Your task to perform on an android device: install app "Adobe Express: Graphic Design" Image 0: 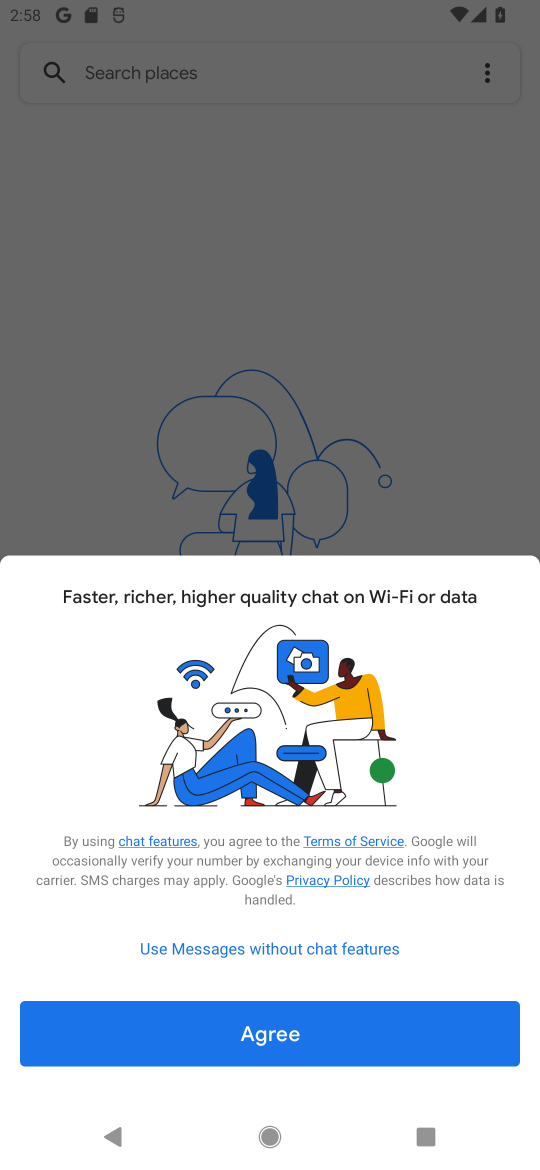
Step 0: press home button
Your task to perform on an android device: install app "Adobe Express: Graphic Design" Image 1: 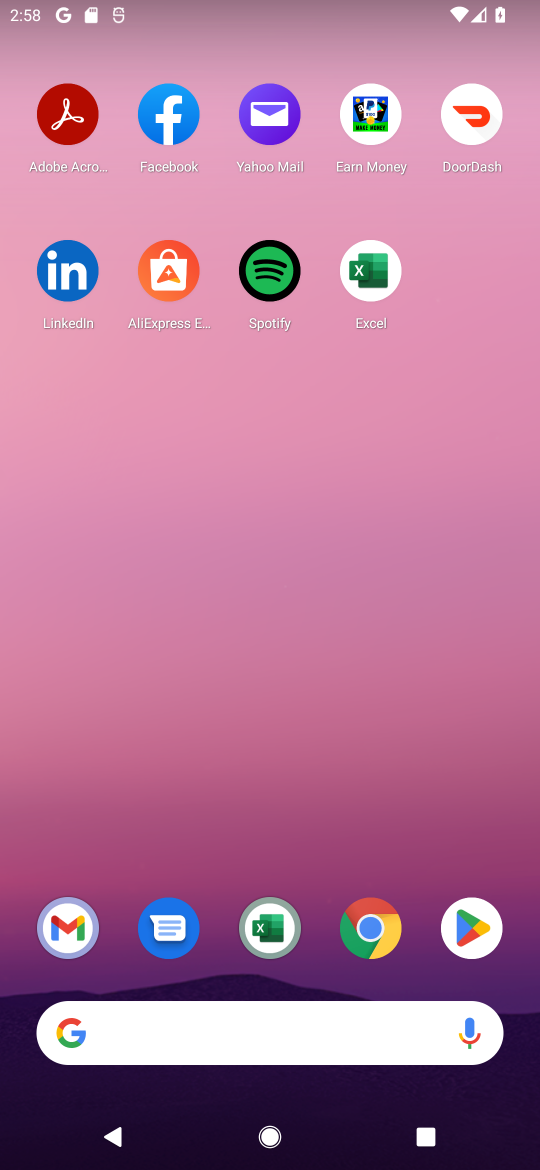
Step 1: click (439, 936)
Your task to perform on an android device: install app "Adobe Express: Graphic Design" Image 2: 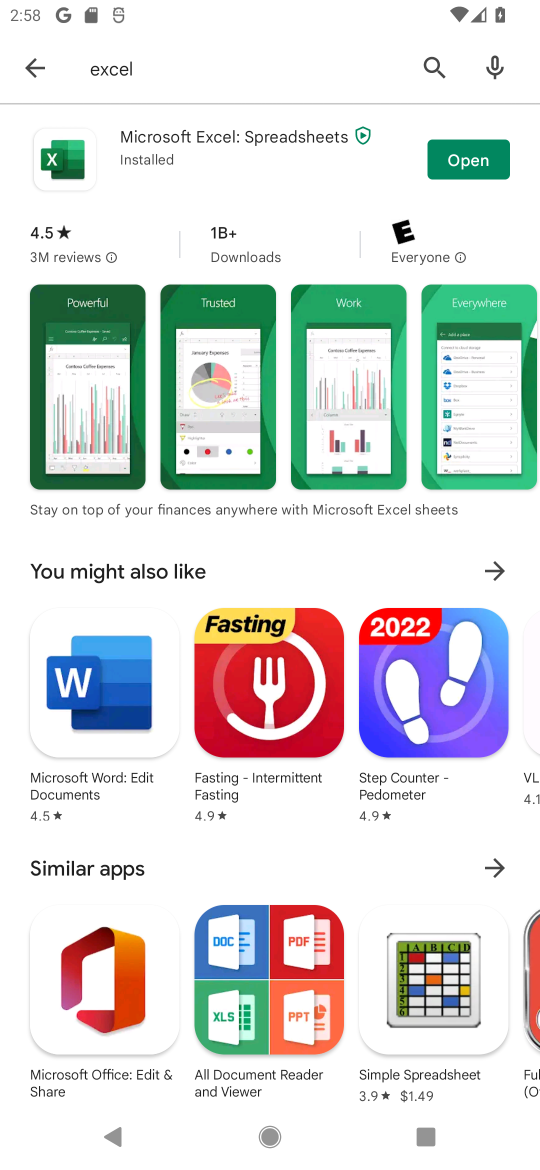
Step 2: click (457, 65)
Your task to perform on an android device: install app "Adobe Express: Graphic Design" Image 3: 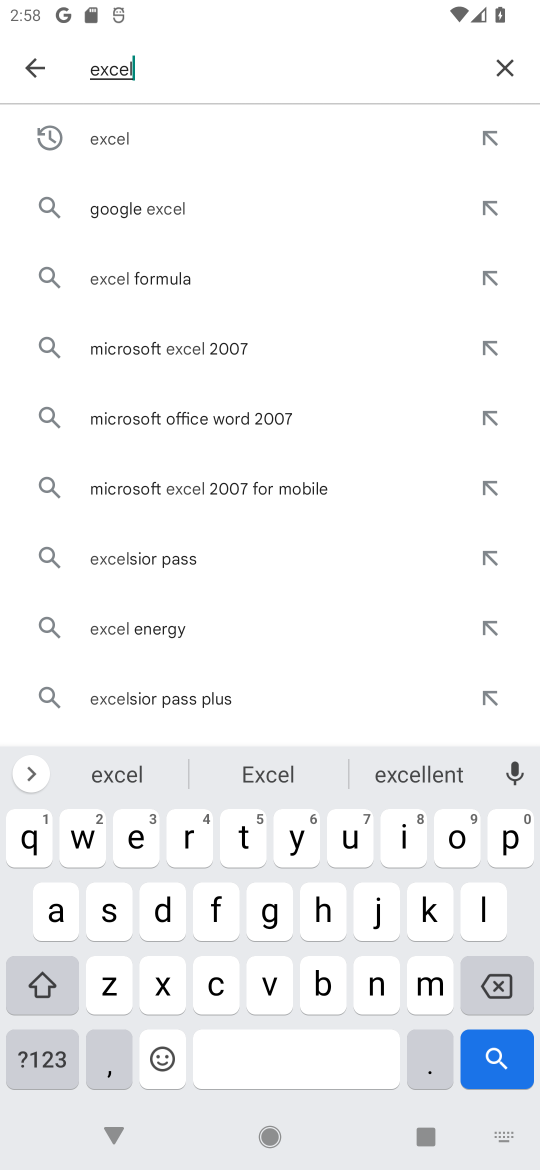
Step 3: click (492, 64)
Your task to perform on an android device: install app "Adobe Express: Graphic Design" Image 4: 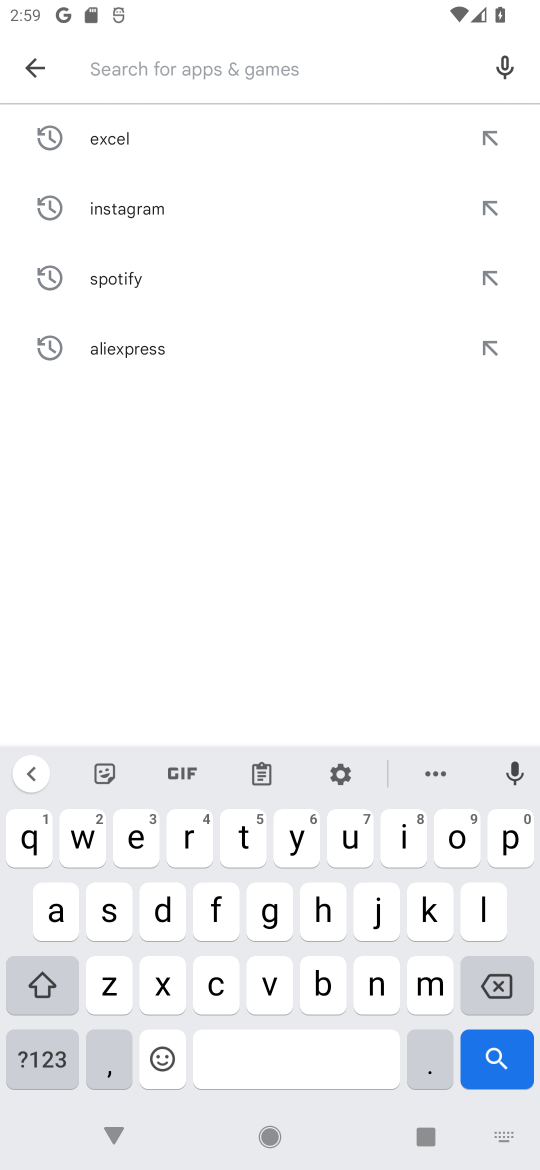
Step 4: click (45, 915)
Your task to perform on an android device: install app "Adobe Express: Graphic Design" Image 5: 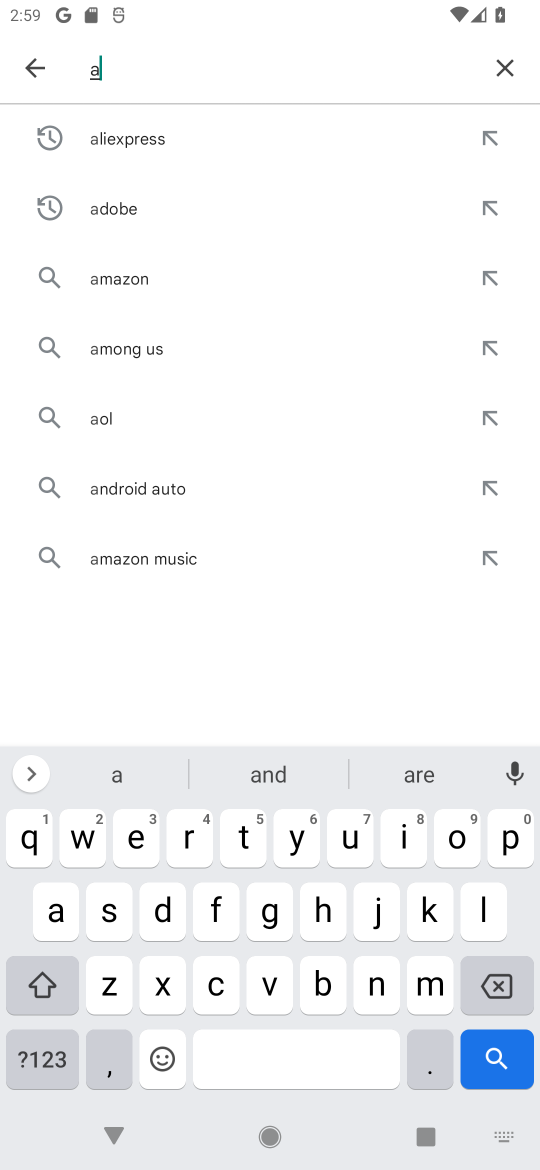
Step 5: click (147, 923)
Your task to perform on an android device: install app "Adobe Express: Graphic Design" Image 6: 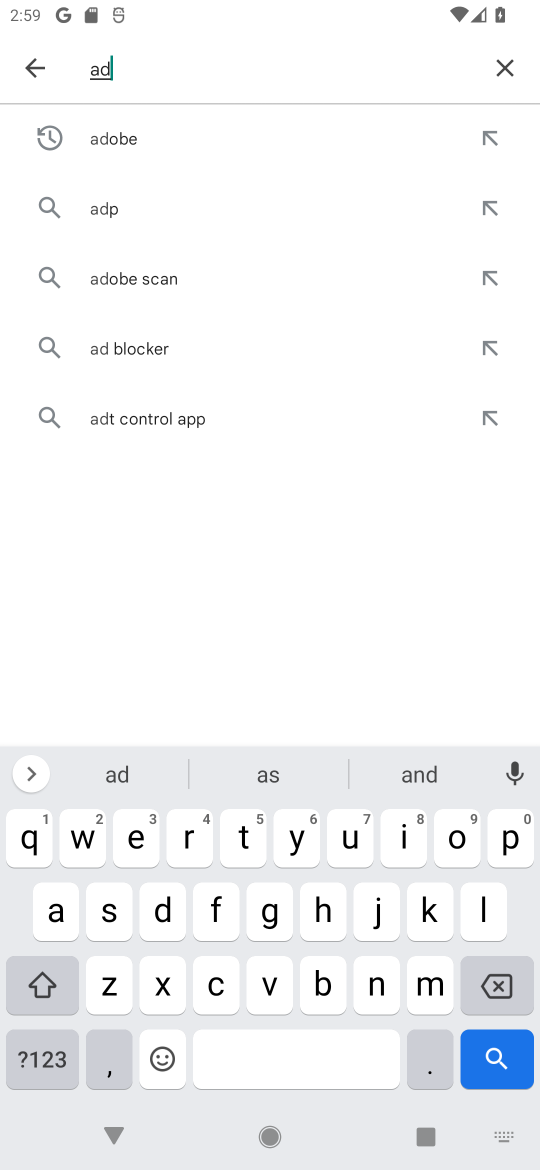
Step 6: click (156, 140)
Your task to perform on an android device: install app "Adobe Express: Graphic Design" Image 7: 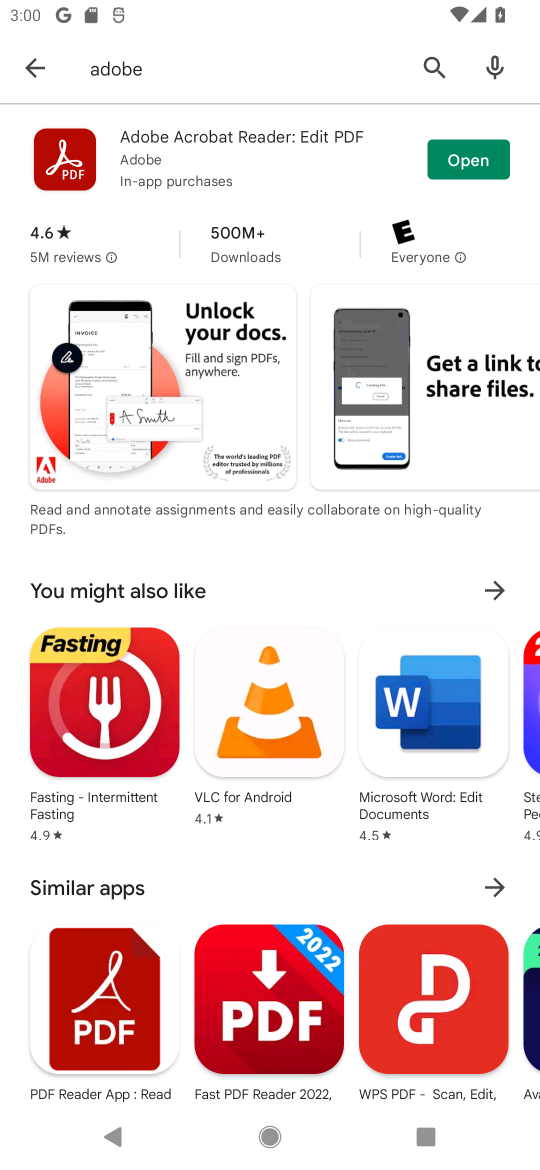
Step 7: task complete